Your task to perform on an android device: Open Youtube and go to the subscriptions tab Image 0: 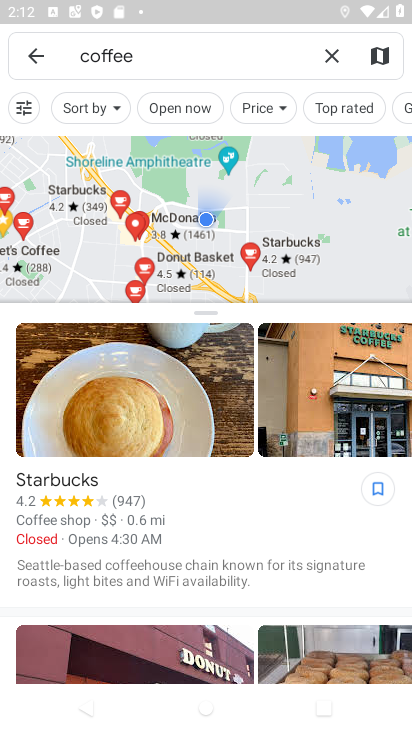
Step 0: press home button
Your task to perform on an android device: Open Youtube and go to the subscriptions tab Image 1: 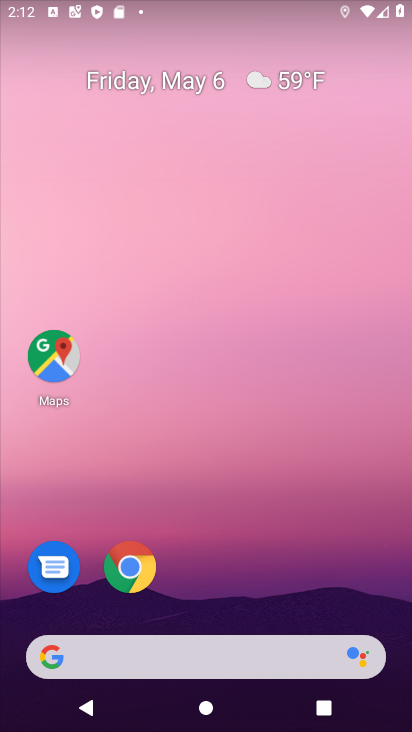
Step 1: drag from (391, 620) to (359, 84)
Your task to perform on an android device: Open Youtube and go to the subscriptions tab Image 2: 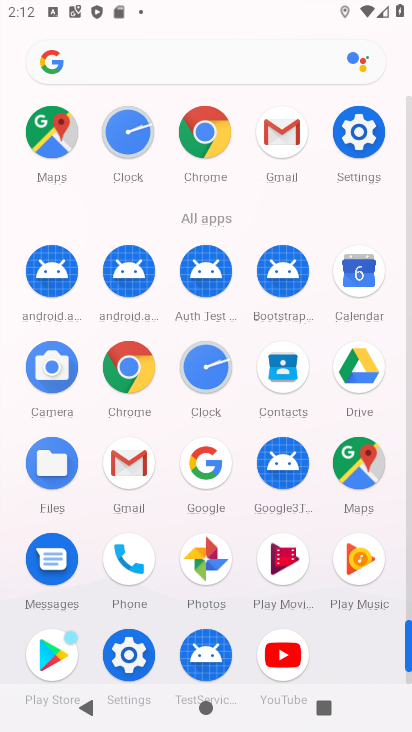
Step 2: click (279, 656)
Your task to perform on an android device: Open Youtube and go to the subscriptions tab Image 3: 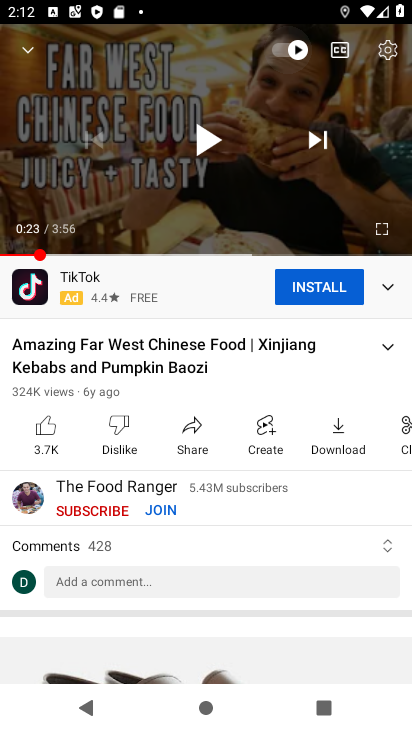
Step 3: press back button
Your task to perform on an android device: Open Youtube and go to the subscriptions tab Image 4: 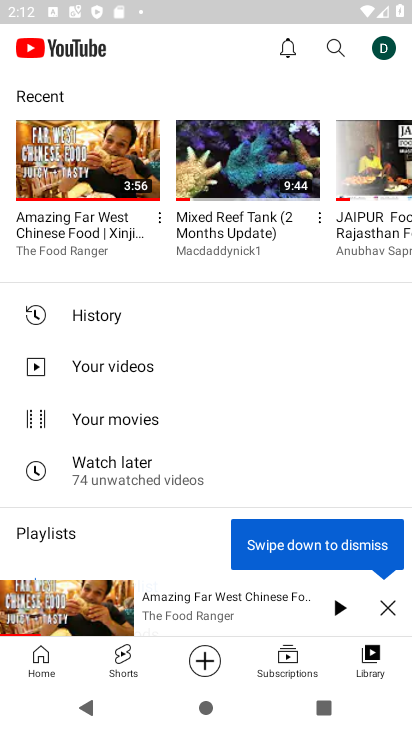
Step 4: click (287, 650)
Your task to perform on an android device: Open Youtube and go to the subscriptions tab Image 5: 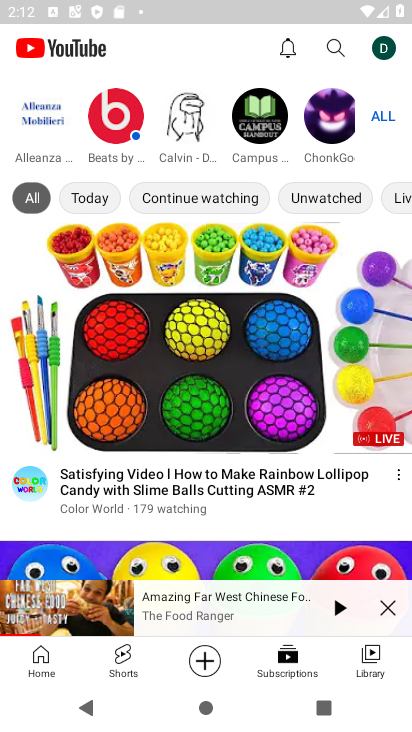
Step 5: click (385, 605)
Your task to perform on an android device: Open Youtube and go to the subscriptions tab Image 6: 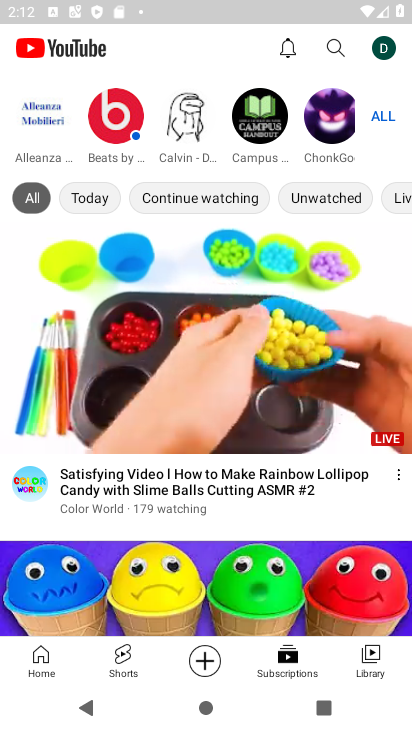
Step 6: task complete